Your task to perform on an android device: turn on translation in the chrome app Image 0: 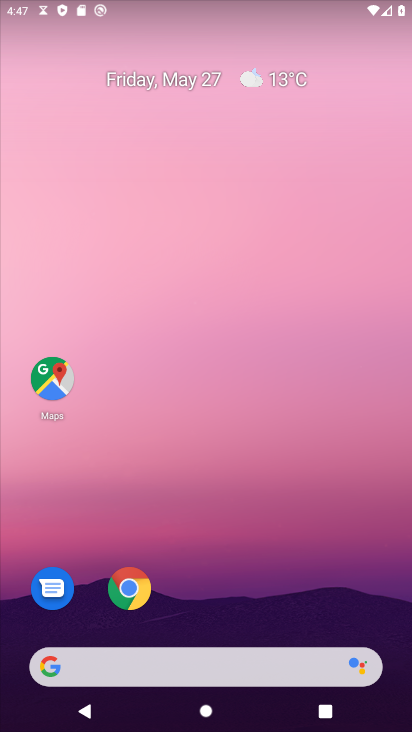
Step 0: click (123, 582)
Your task to perform on an android device: turn on translation in the chrome app Image 1: 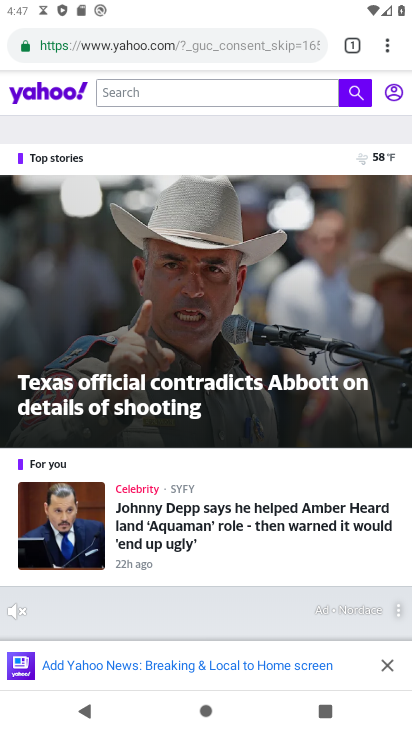
Step 1: drag from (385, 45) to (227, 547)
Your task to perform on an android device: turn on translation in the chrome app Image 2: 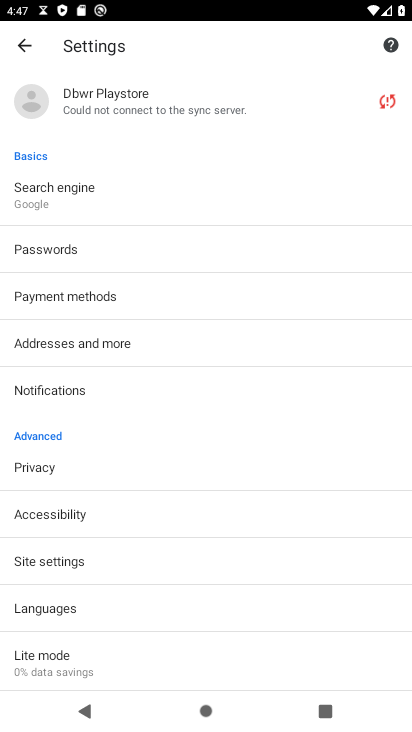
Step 2: click (40, 606)
Your task to perform on an android device: turn on translation in the chrome app Image 3: 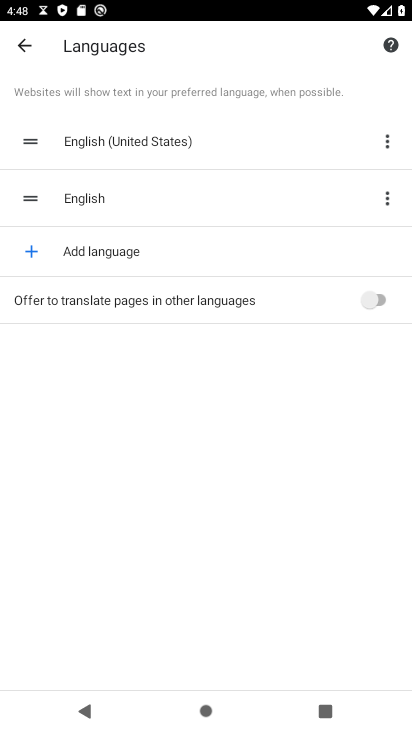
Step 3: click (371, 295)
Your task to perform on an android device: turn on translation in the chrome app Image 4: 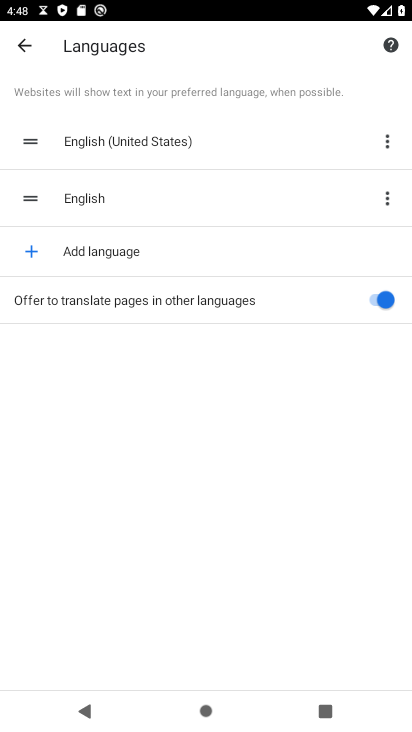
Step 4: task complete